Your task to perform on an android device: Is it going to rain tomorrow? Image 0: 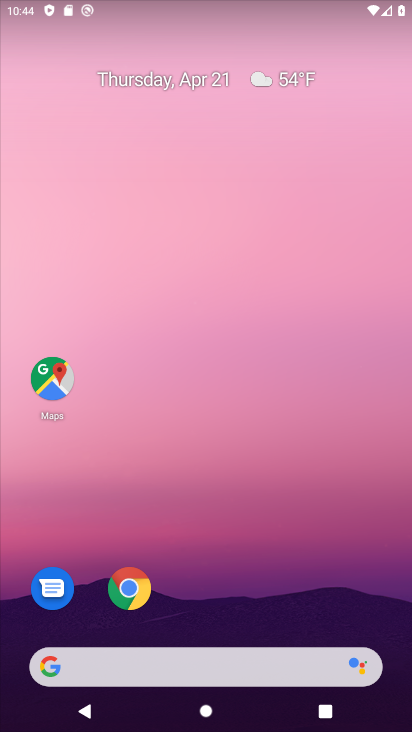
Step 0: drag from (304, 592) to (245, 27)
Your task to perform on an android device: Is it going to rain tomorrow? Image 1: 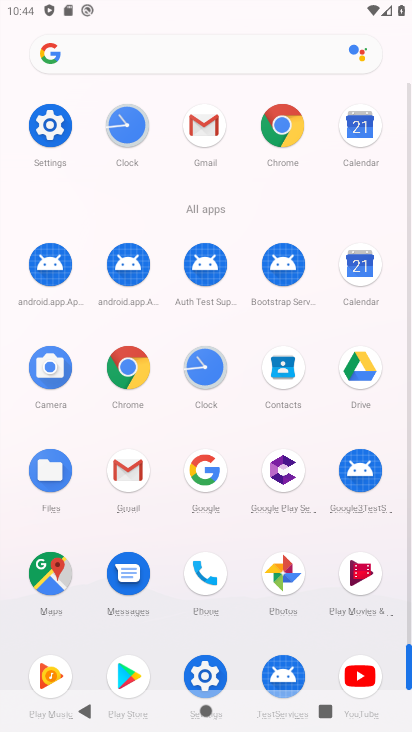
Step 1: drag from (136, 48) to (207, 510)
Your task to perform on an android device: Is it going to rain tomorrow? Image 2: 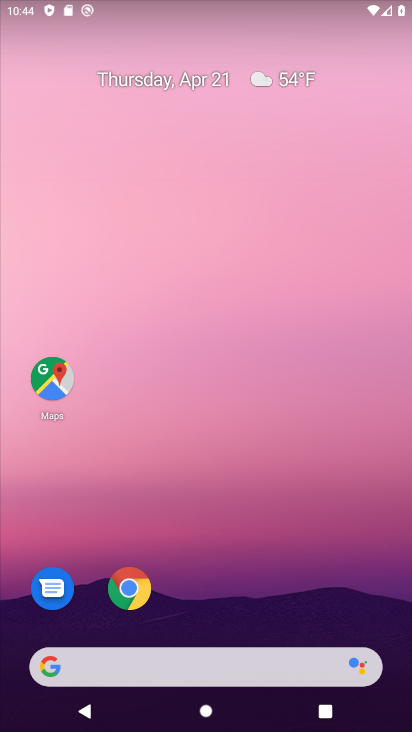
Step 2: click (301, 81)
Your task to perform on an android device: Is it going to rain tomorrow? Image 3: 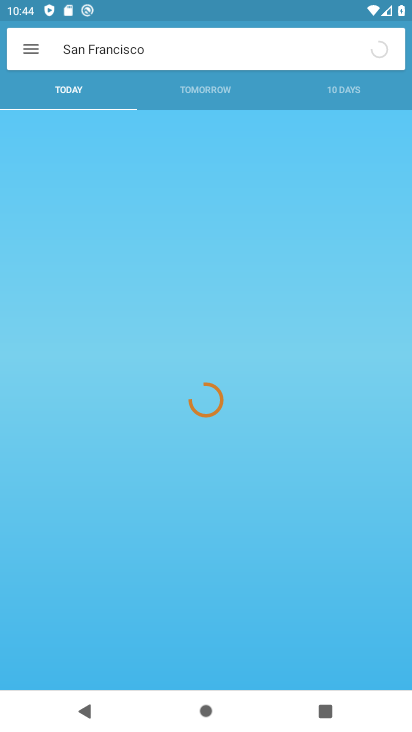
Step 3: click (203, 89)
Your task to perform on an android device: Is it going to rain tomorrow? Image 4: 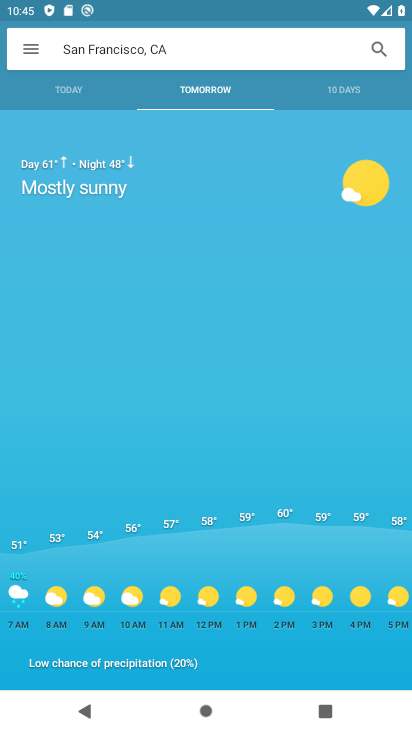
Step 4: task complete